Your task to perform on an android device: choose inbox layout in the gmail app Image 0: 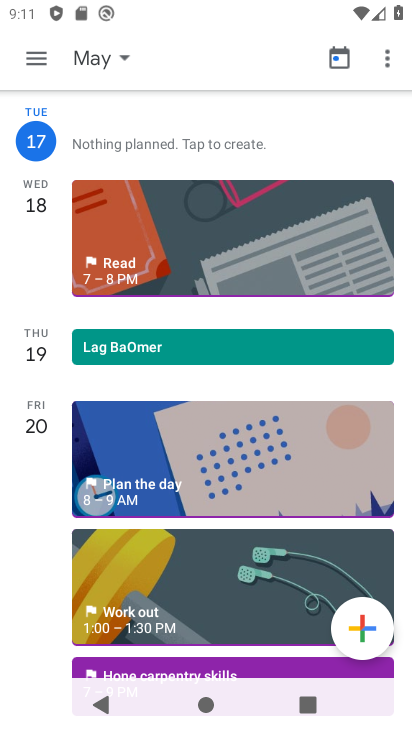
Step 0: press home button
Your task to perform on an android device: choose inbox layout in the gmail app Image 1: 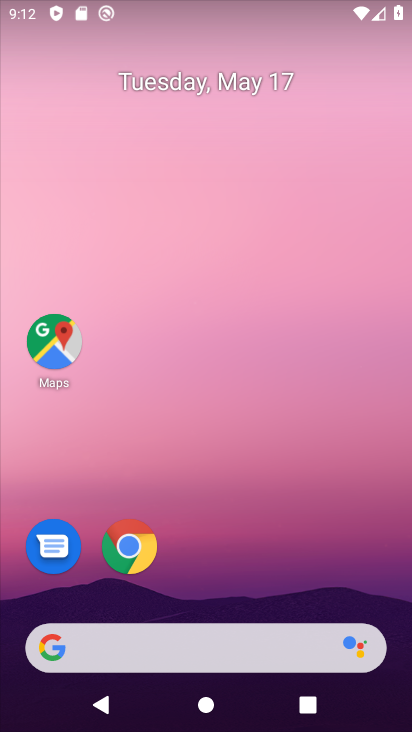
Step 1: drag from (251, 591) to (347, 40)
Your task to perform on an android device: choose inbox layout in the gmail app Image 2: 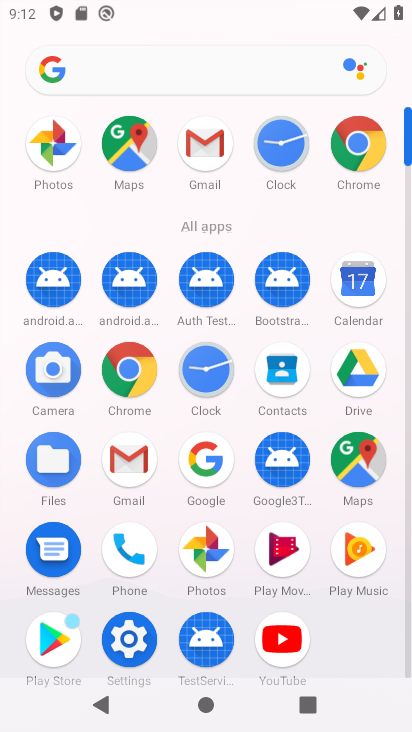
Step 2: click (138, 464)
Your task to perform on an android device: choose inbox layout in the gmail app Image 3: 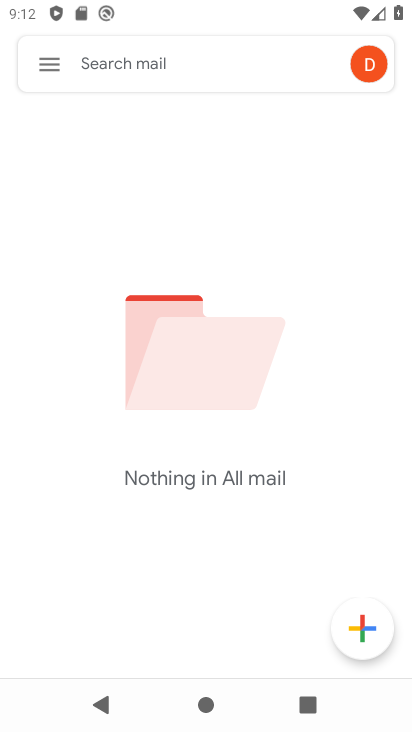
Step 3: click (61, 63)
Your task to perform on an android device: choose inbox layout in the gmail app Image 4: 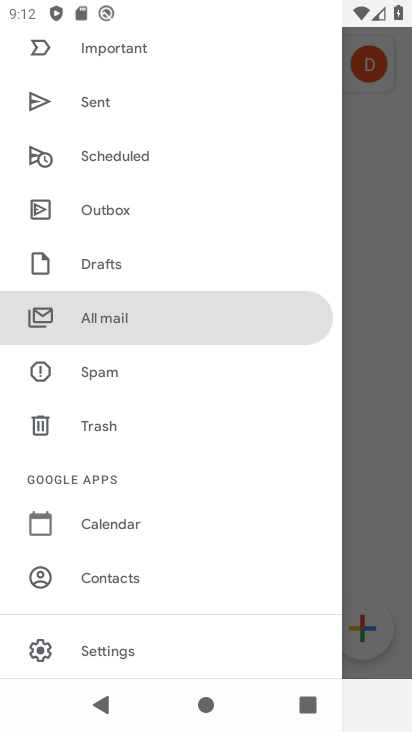
Step 4: click (181, 641)
Your task to perform on an android device: choose inbox layout in the gmail app Image 5: 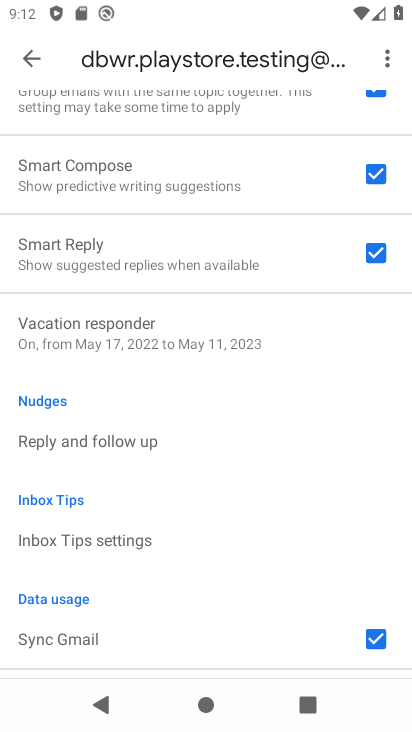
Step 5: drag from (132, 347) to (163, 585)
Your task to perform on an android device: choose inbox layout in the gmail app Image 6: 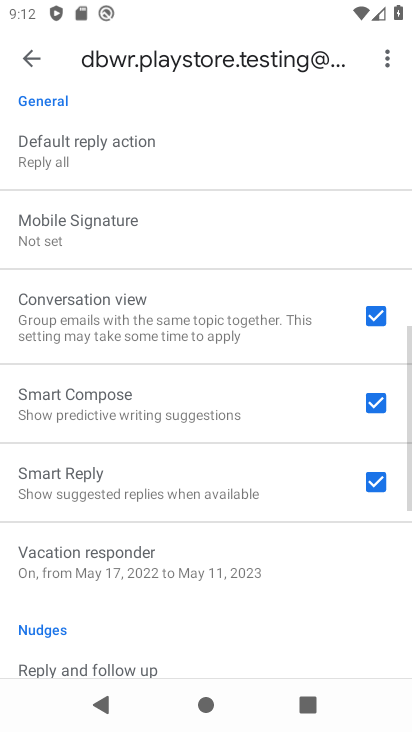
Step 6: drag from (142, 302) to (196, 477)
Your task to perform on an android device: choose inbox layout in the gmail app Image 7: 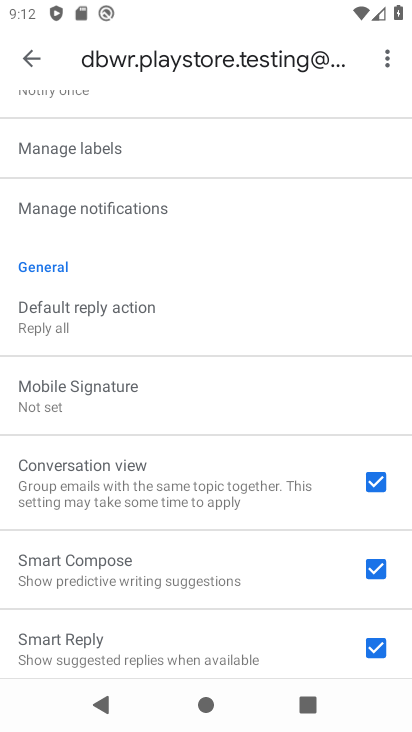
Step 7: drag from (159, 285) to (142, 556)
Your task to perform on an android device: choose inbox layout in the gmail app Image 8: 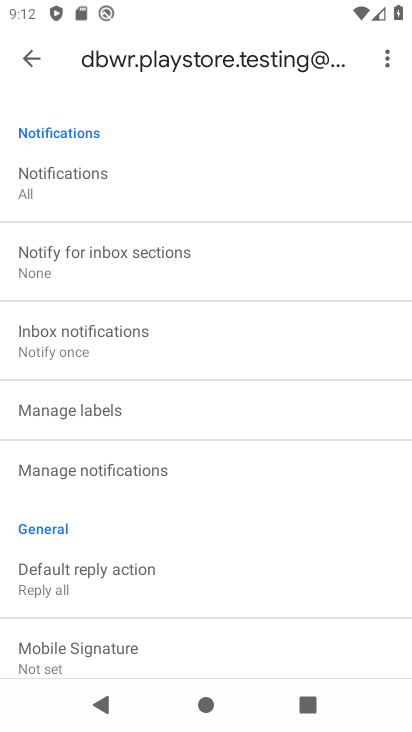
Step 8: drag from (127, 358) to (145, 547)
Your task to perform on an android device: choose inbox layout in the gmail app Image 9: 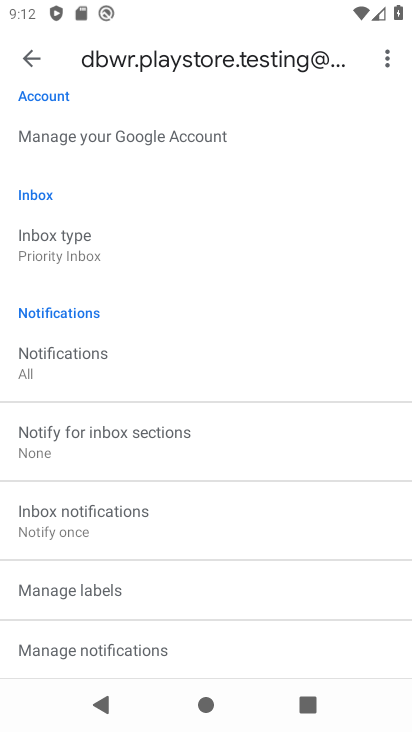
Step 9: click (73, 249)
Your task to perform on an android device: choose inbox layout in the gmail app Image 10: 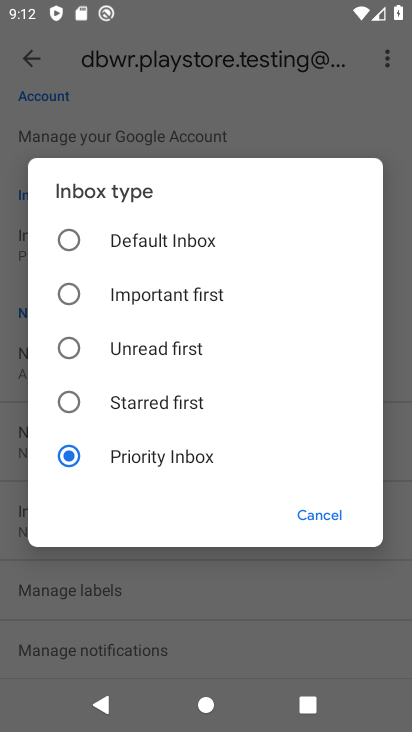
Step 10: click (91, 230)
Your task to perform on an android device: choose inbox layout in the gmail app Image 11: 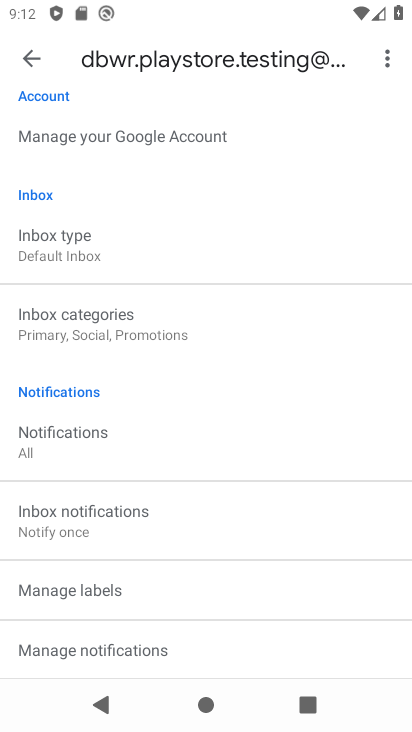
Step 11: task complete